Your task to perform on an android device: Open Google Image 0: 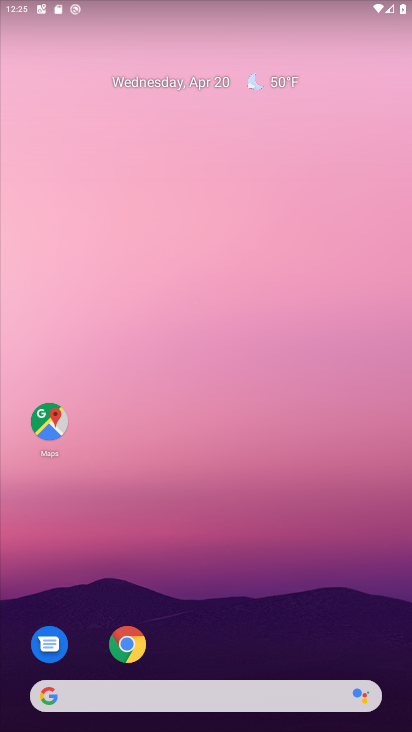
Step 0: drag from (229, 621) to (241, 56)
Your task to perform on an android device: Open Google Image 1: 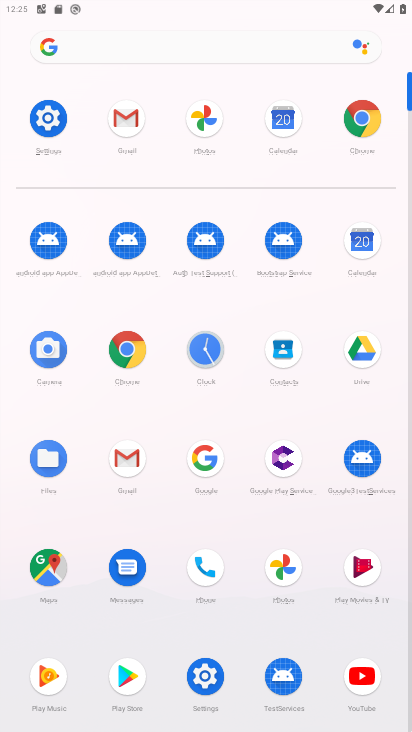
Step 1: click (205, 462)
Your task to perform on an android device: Open Google Image 2: 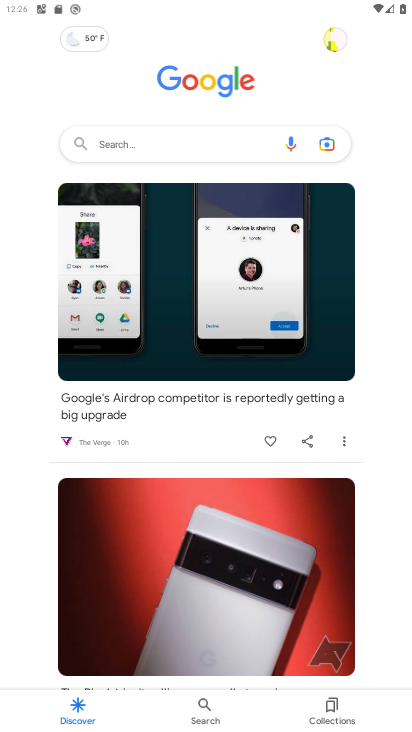
Step 2: task complete